Your task to perform on an android device: Go to eBay Image 0: 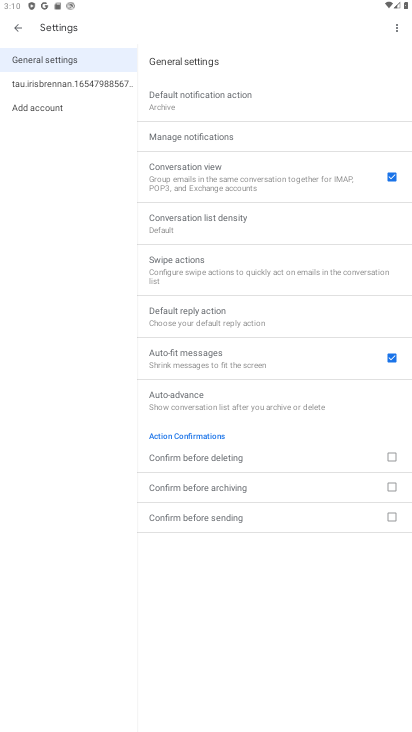
Step 0: press home button
Your task to perform on an android device: Go to eBay Image 1: 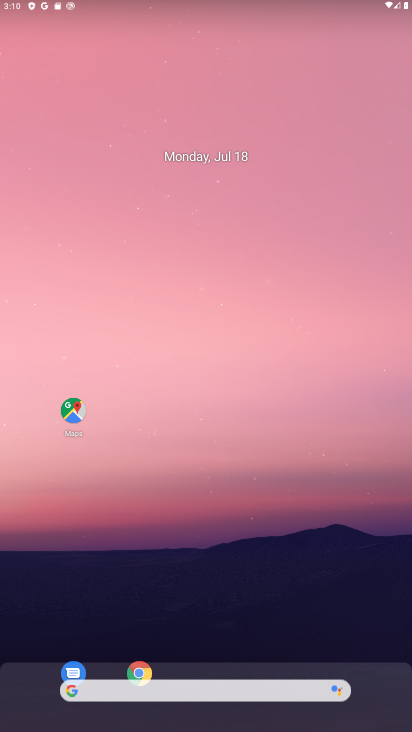
Step 1: drag from (245, 545) to (266, 234)
Your task to perform on an android device: Go to eBay Image 2: 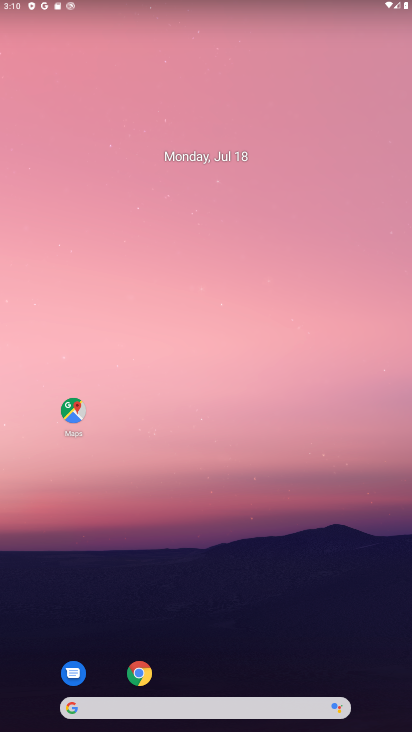
Step 2: drag from (195, 659) to (294, 173)
Your task to perform on an android device: Go to eBay Image 3: 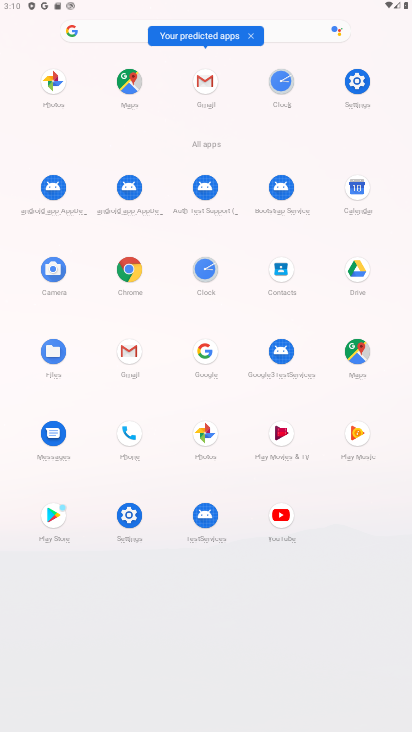
Step 3: click (123, 274)
Your task to perform on an android device: Go to eBay Image 4: 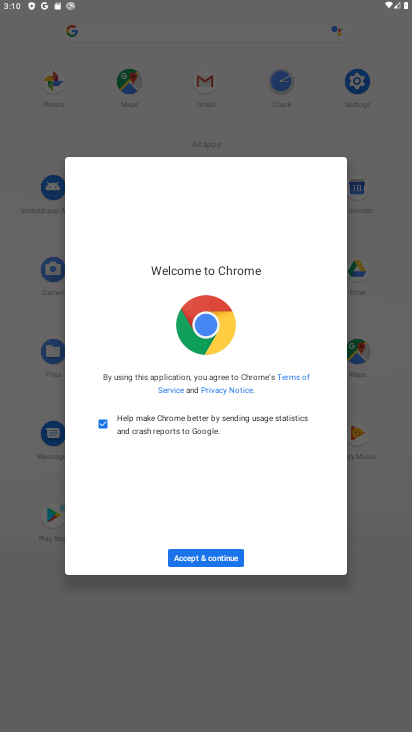
Step 4: click (223, 556)
Your task to perform on an android device: Go to eBay Image 5: 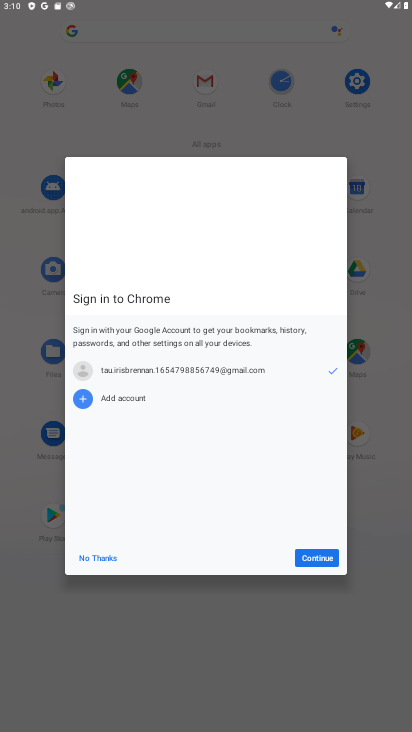
Step 5: click (319, 561)
Your task to perform on an android device: Go to eBay Image 6: 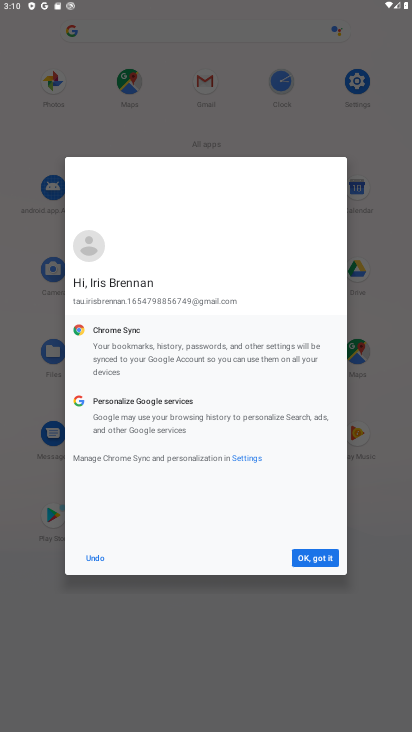
Step 6: click (319, 561)
Your task to perform on an android device: Go to eBay Image 7: 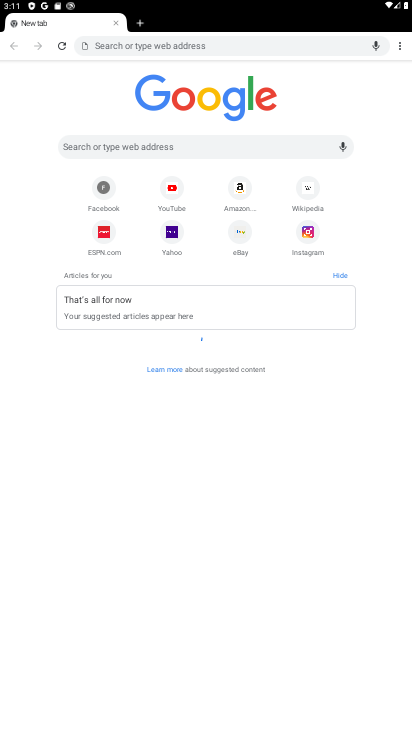
Step 7: click (247, 236)
Your task to perform on an android device: Go to eBay Image 8: 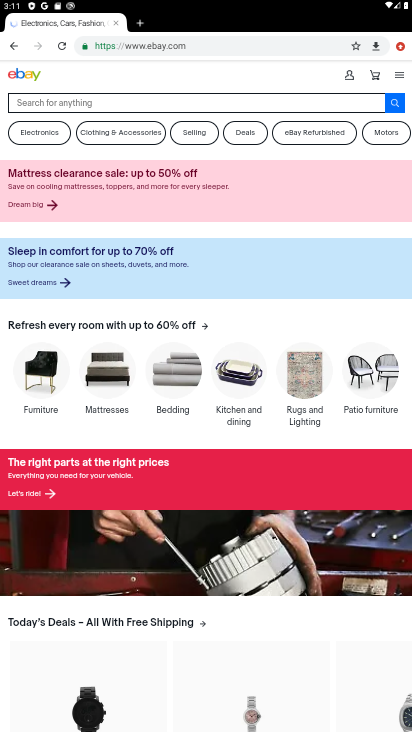
Step 8: task complete